Your task to perform on an android device: change alarm snooze length Image 0: 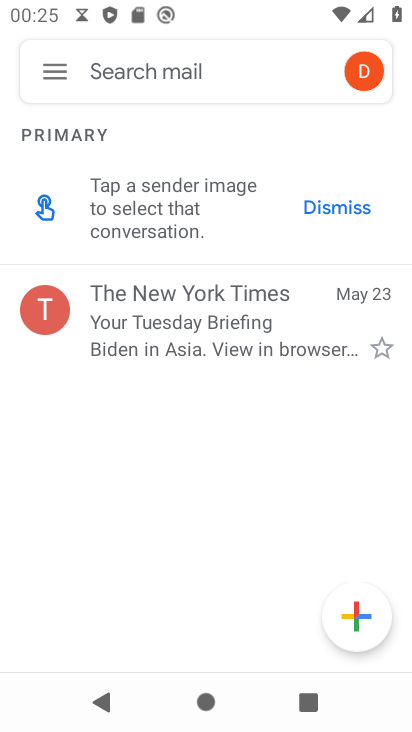
Step 0: press home button
Your task to perform on an android device: change alarm snooze length Image 1: 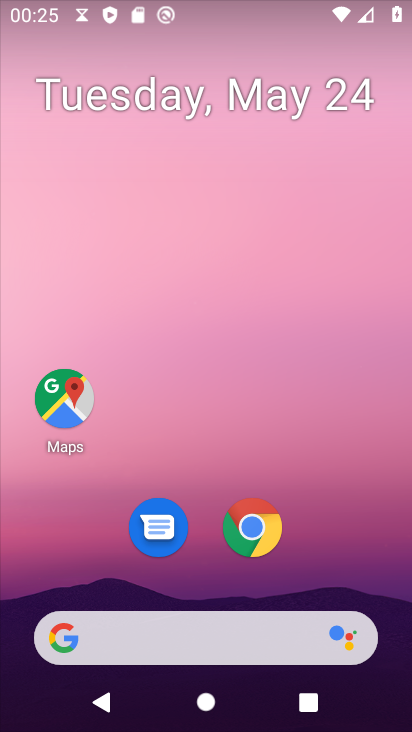
Step 1: drag from (214, 626) to (299, 142)
Your task to perform on an android device: change alarm snooze length Image 2: 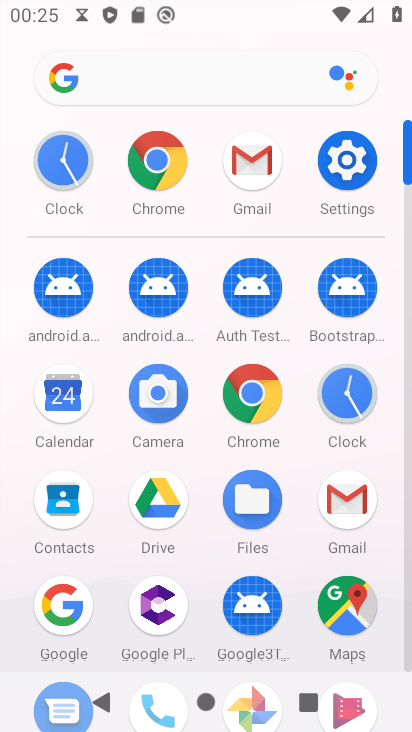
Step 2: click (356, 383)
Your task to perform on an android device: change alarm snooze length Image 3: 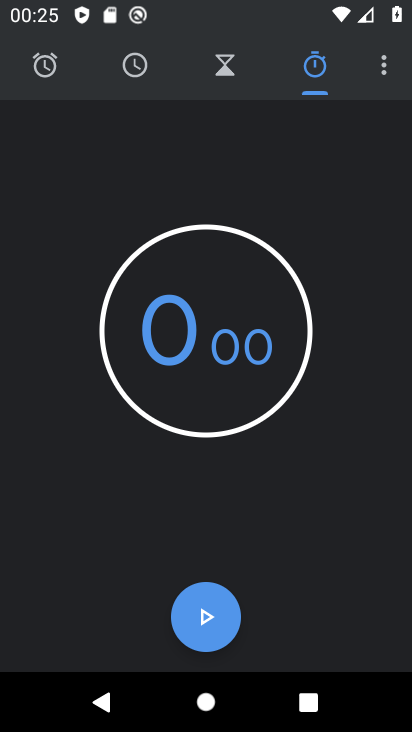
Step 3: click (386, 70)
Your task to perform on an android device: change alarm snooze length Image 4: 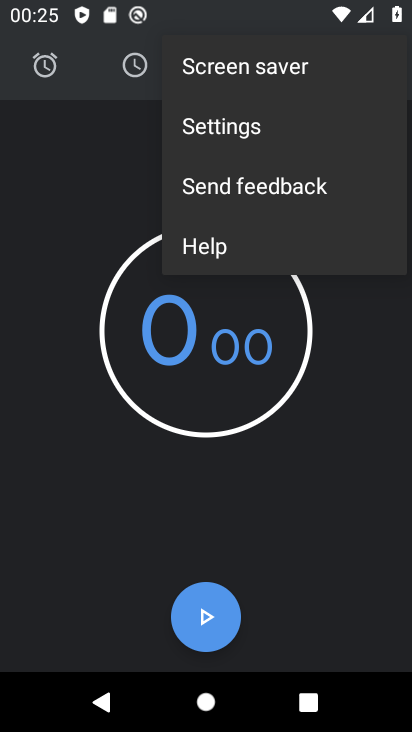
Step 4: click (223, 124)
Your task to perform on an android device: change alarm snooze length Image 5: 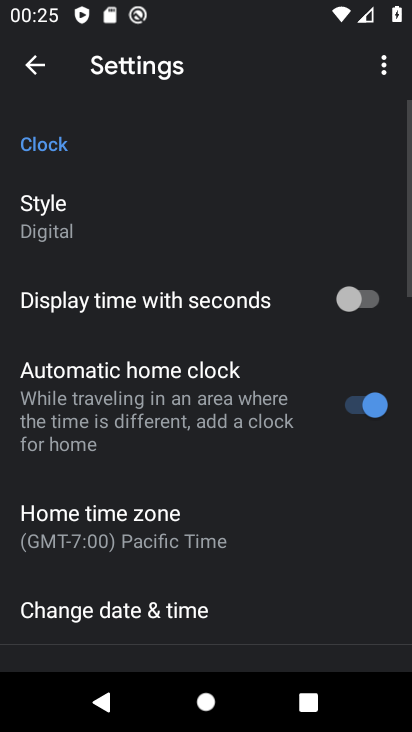
Step 5: drag from (208, 576) to (309, 158)
Your task to perform on an android device: change alarm snooze length Image 6: 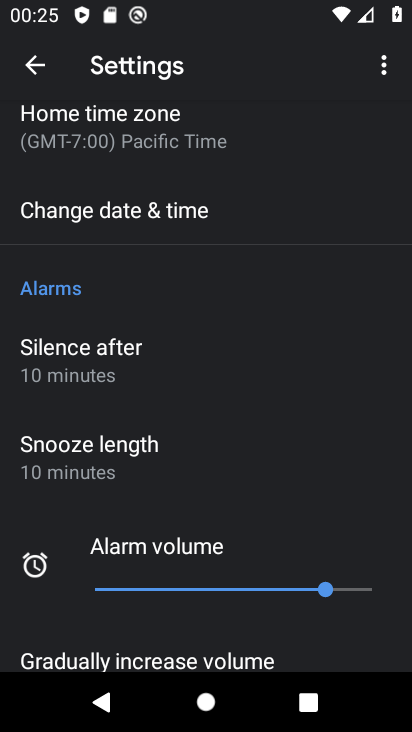
Step 6: click (62, 453)
Your task to perform on an android device: change alarm snooze length Image 7: 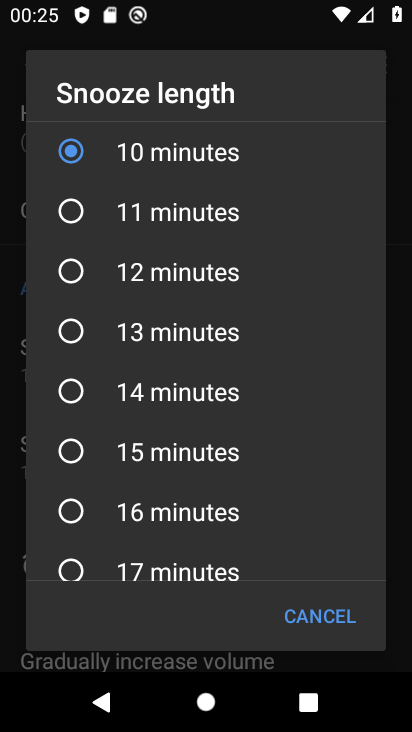
Step 7: click (66, 458)
Your task to perform on an android device: change alarm snooze length Image 8: 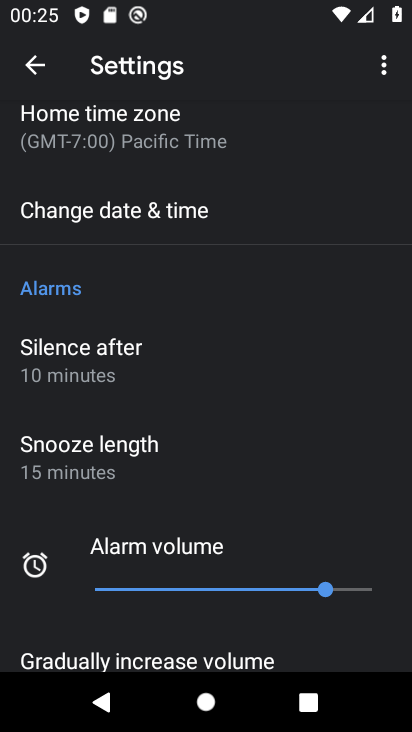
Step 8: task complete